Your task to perform on an android device: Search for "bose soundlink mini" on target, select the first entry, add it to the cart, then select checkout. Image 0: 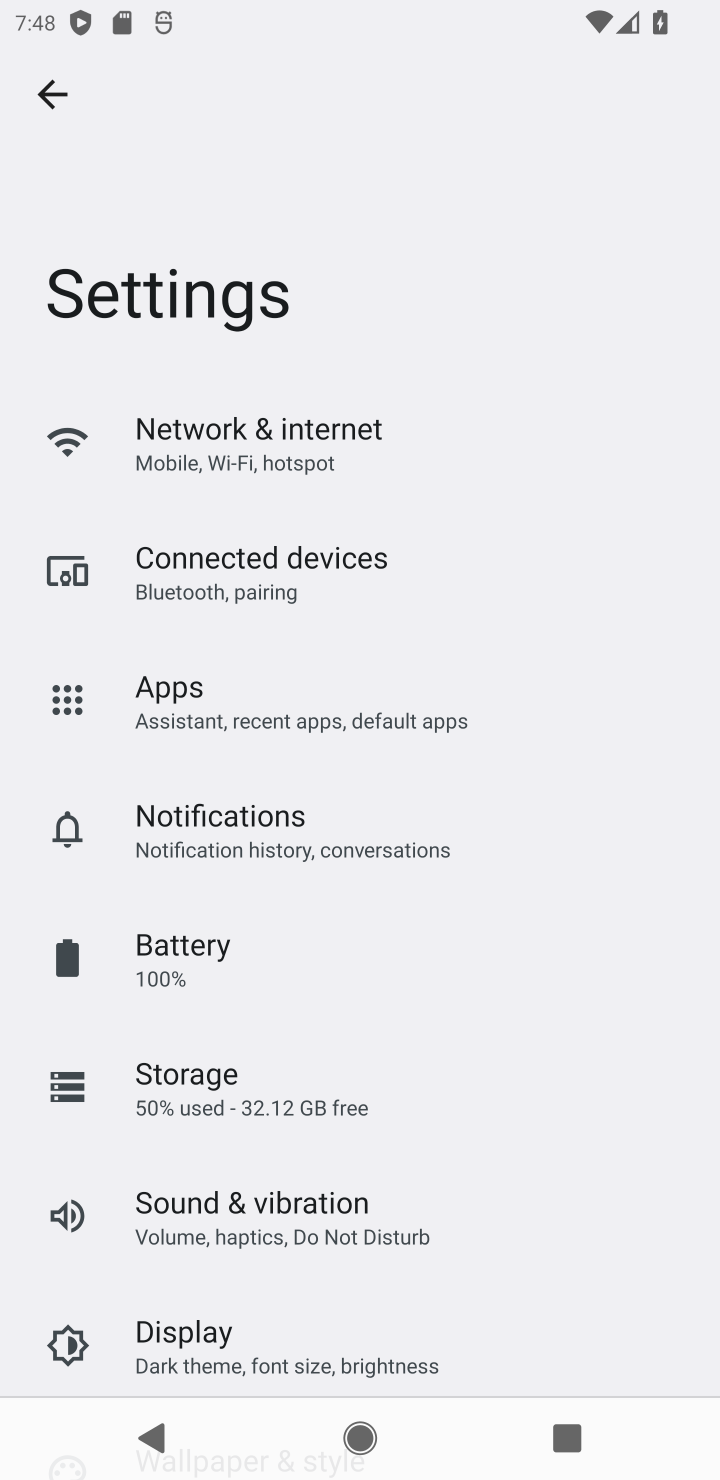
Step 0: press home button
Your task to perform on an android device: Search for "bose soundlink mini" on target, select the first entry, add it to the cart, then select checkout. Image 1: 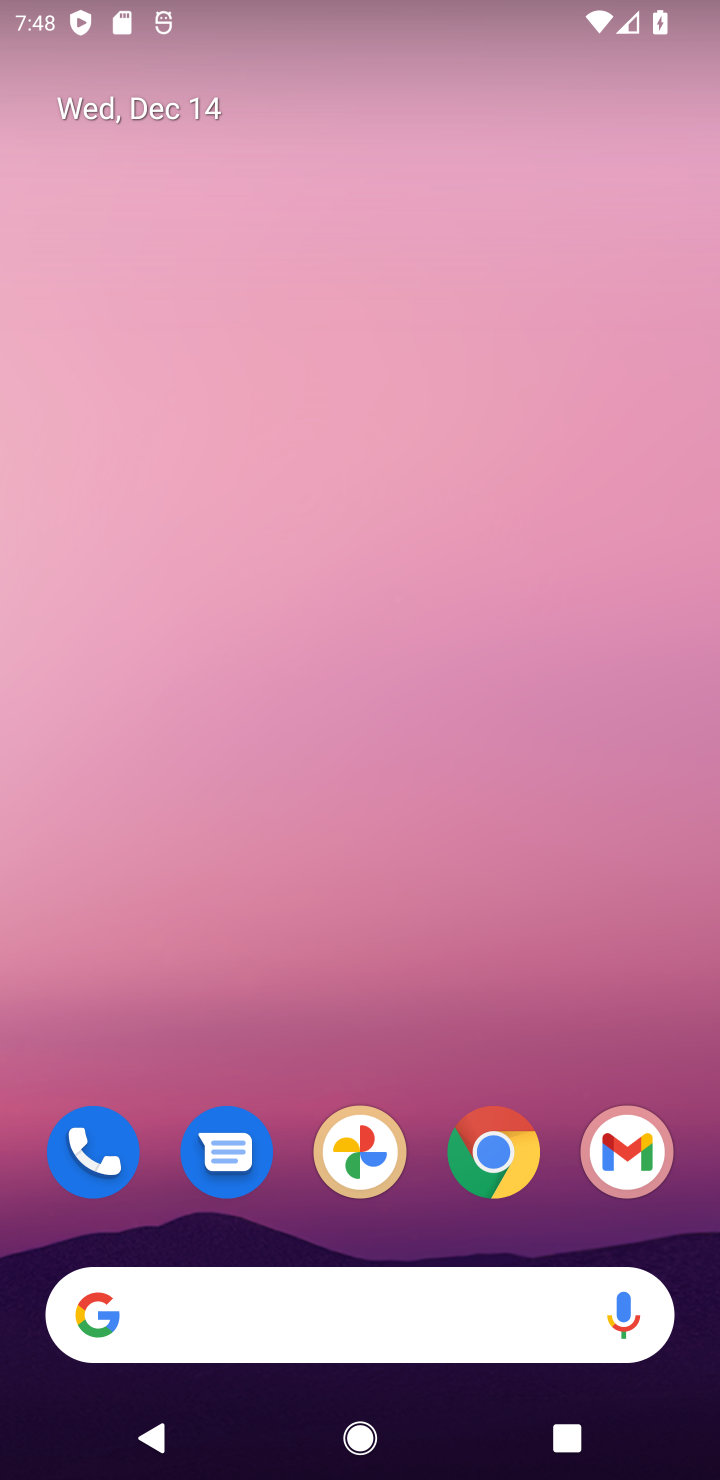
Step 1: click (493, 1173)
Your task to perform on an android device: Search for "bose soundlink mini" on target, select the first entry, add it to the cart, then select checkout. Image 2: 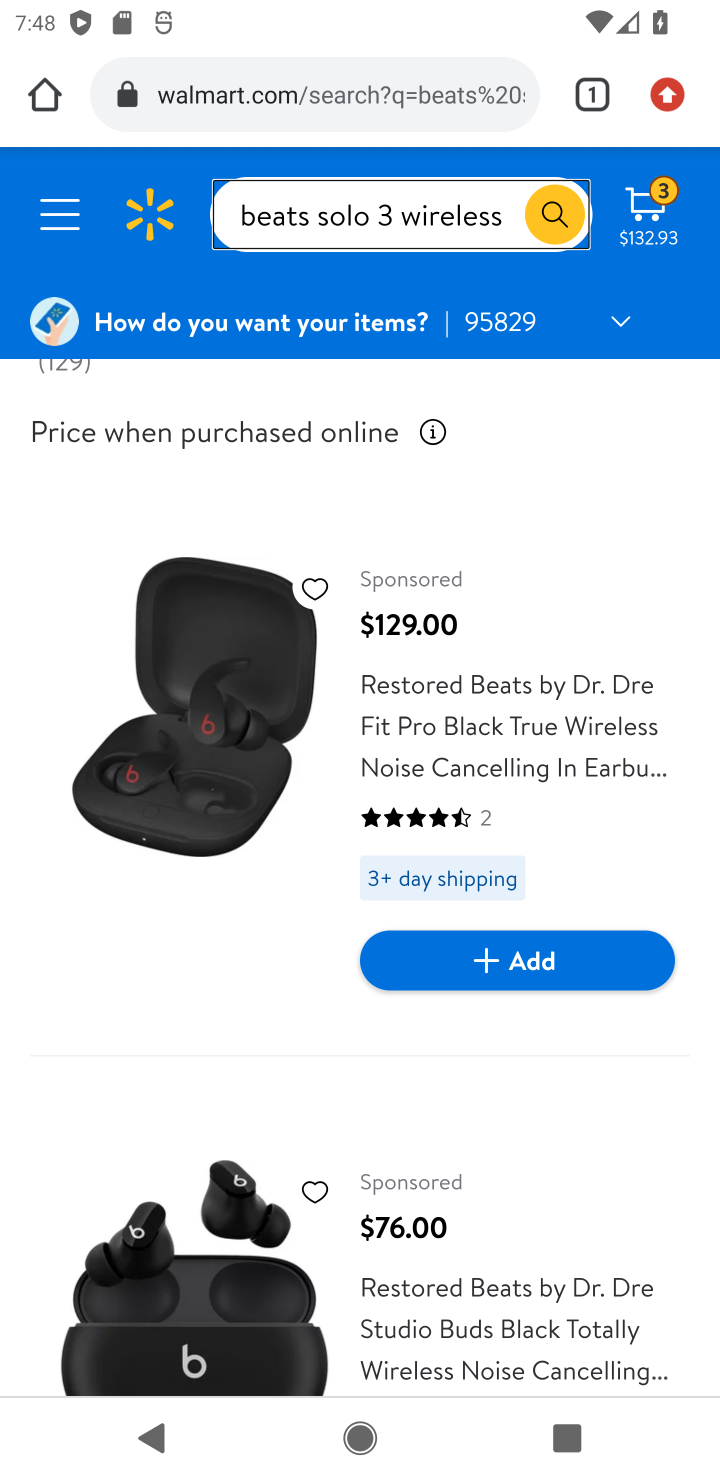
Step 2: click (282, 102)
Your task to perform on an android device: Search for "bose soundlink mini" on target, select the first entry, add it to the cart, then select checkout. Image 3: 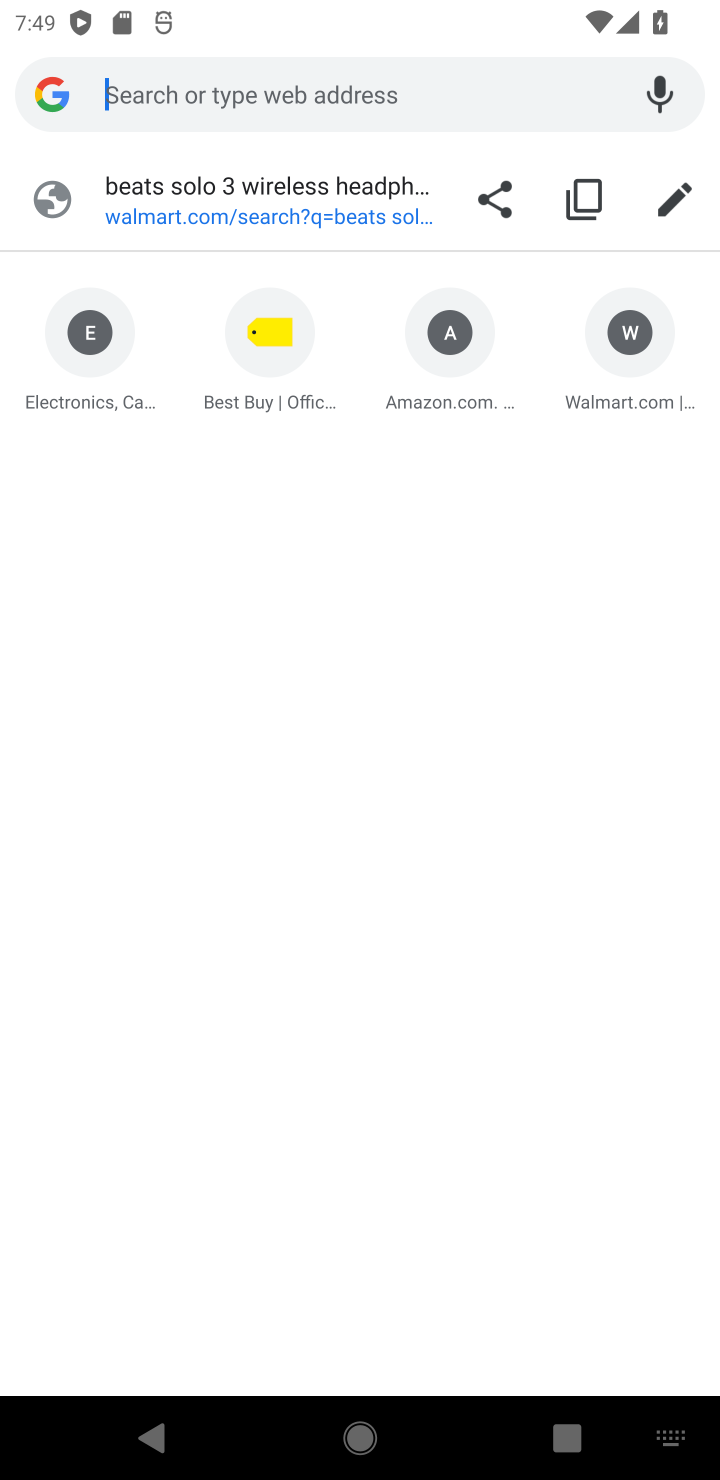
Step 3: type "target.com"
Your task to perform on an android device: Search for "bose soundlink mini" on target, select the first entry, add it to the cart, then select checkout. Image 4: 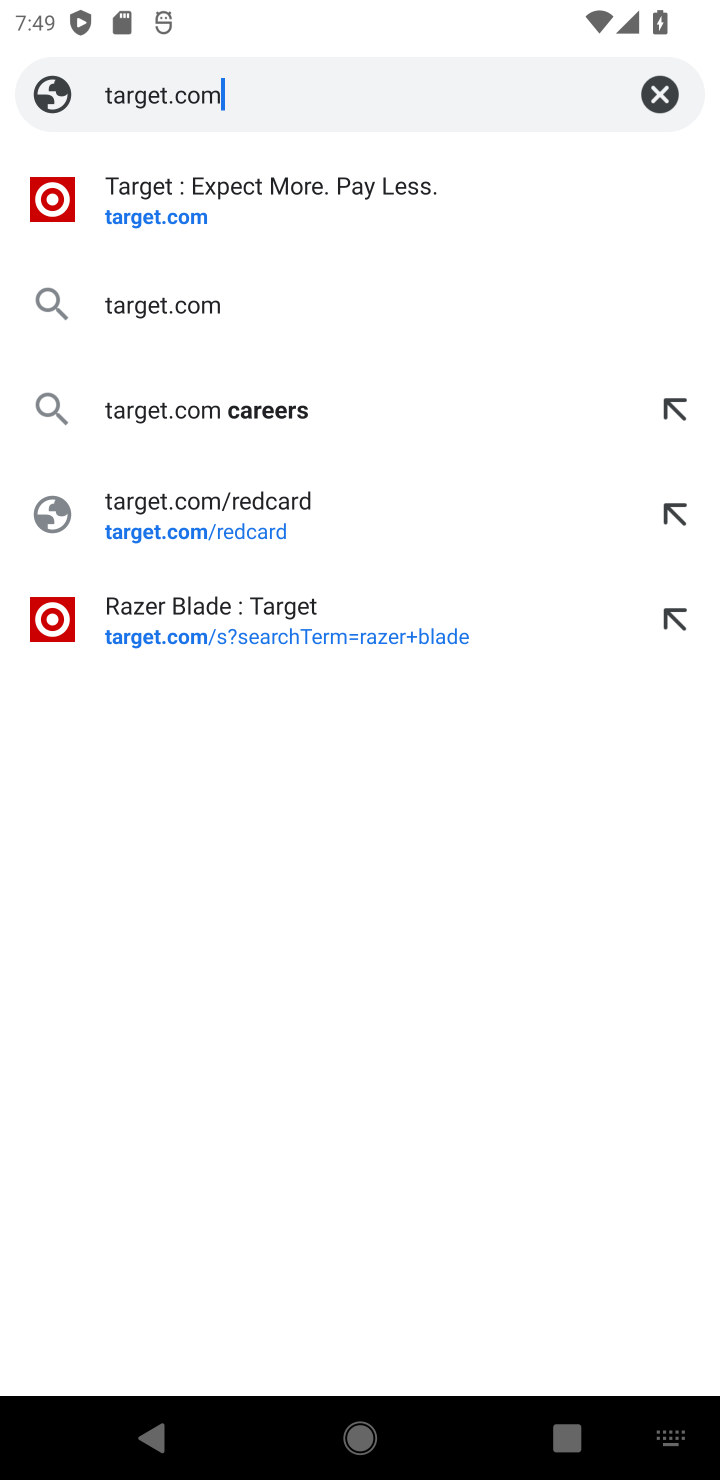
Step 4: click (130, 227)
Your task to perform on an android device: Search for "bose soundlink mini" on target, select the first entry, add it to the cart, then select checkout. Image 5: 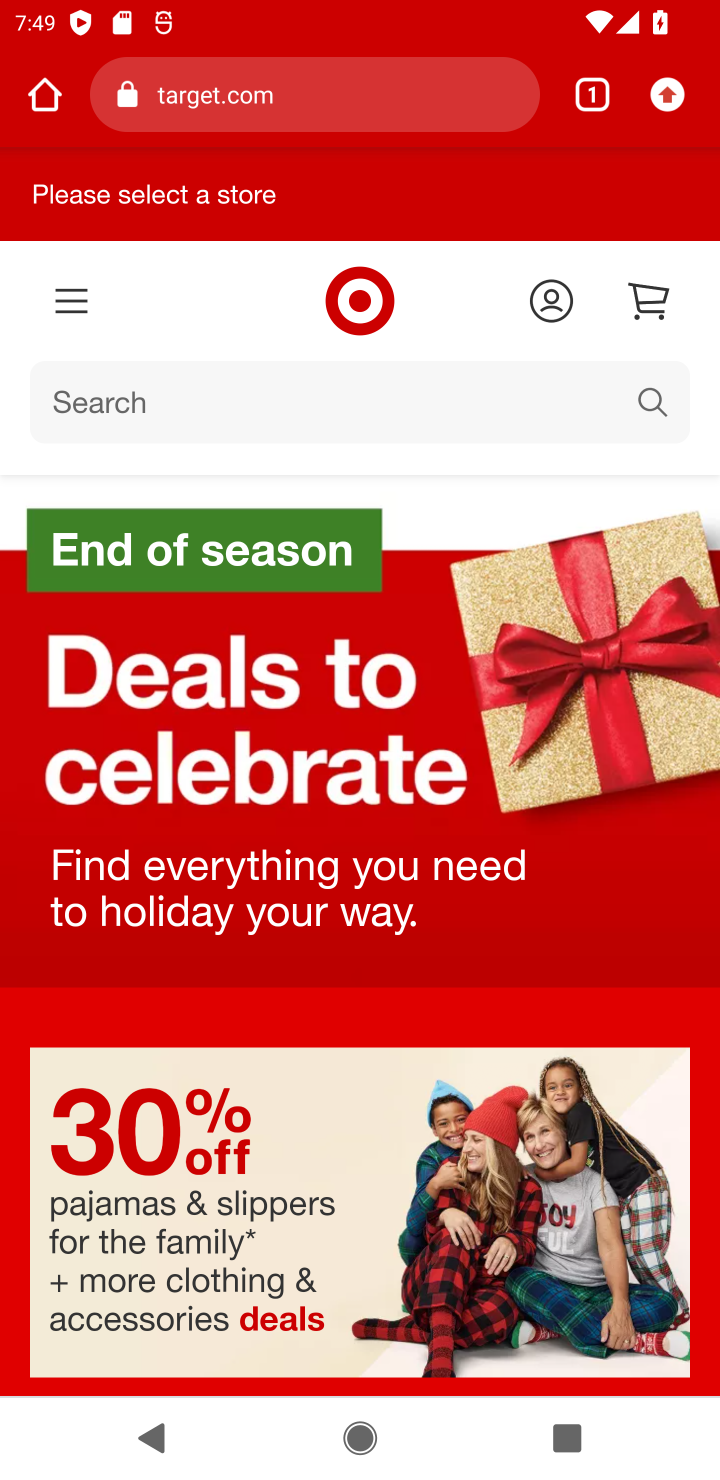
Step 5: click (65, 401)
Your task to perform on an android device: Search for "bose soundlink mini" on target, select the first entry, add it to the cart, then select checkout. Image 6: 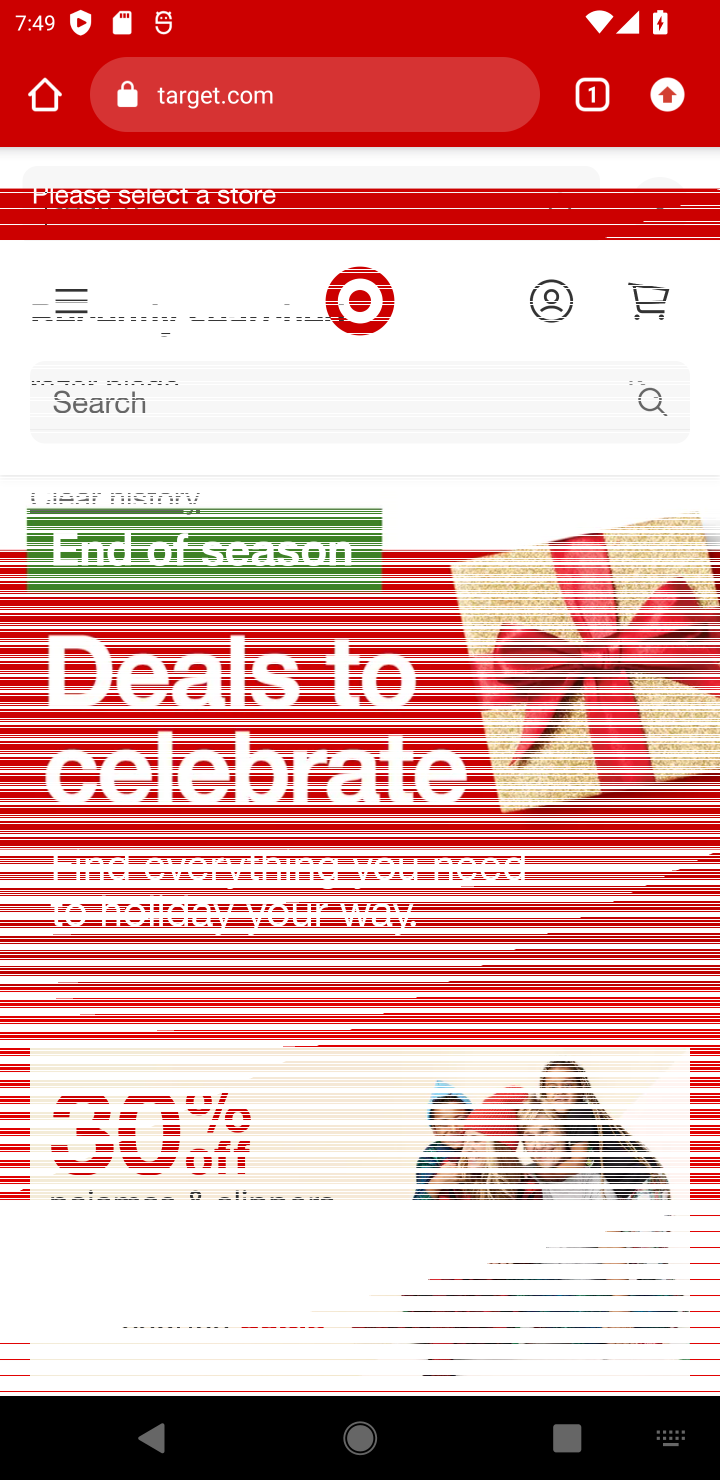
Step 6: type "bose soundlink mini"
Your task to perform on an android device: Search for "bose soundlink mini" on target, select the first entry, add it to the cart, then select checkout. Image 7: 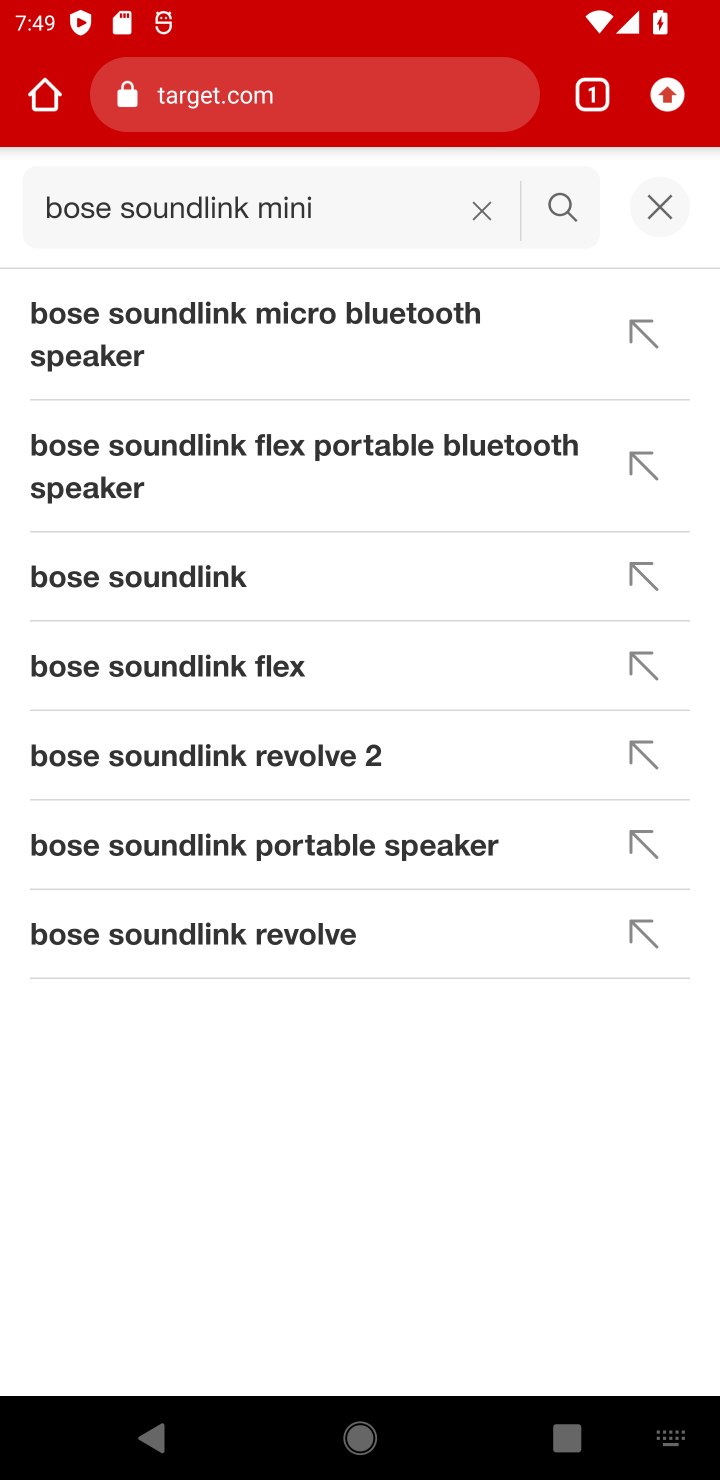
Step 7: click (564, 202)
Your task to perform on an android device: Search for "bose soundlink mini" on target, select the first entry, add it to the cart, then select checkout. Image 8: 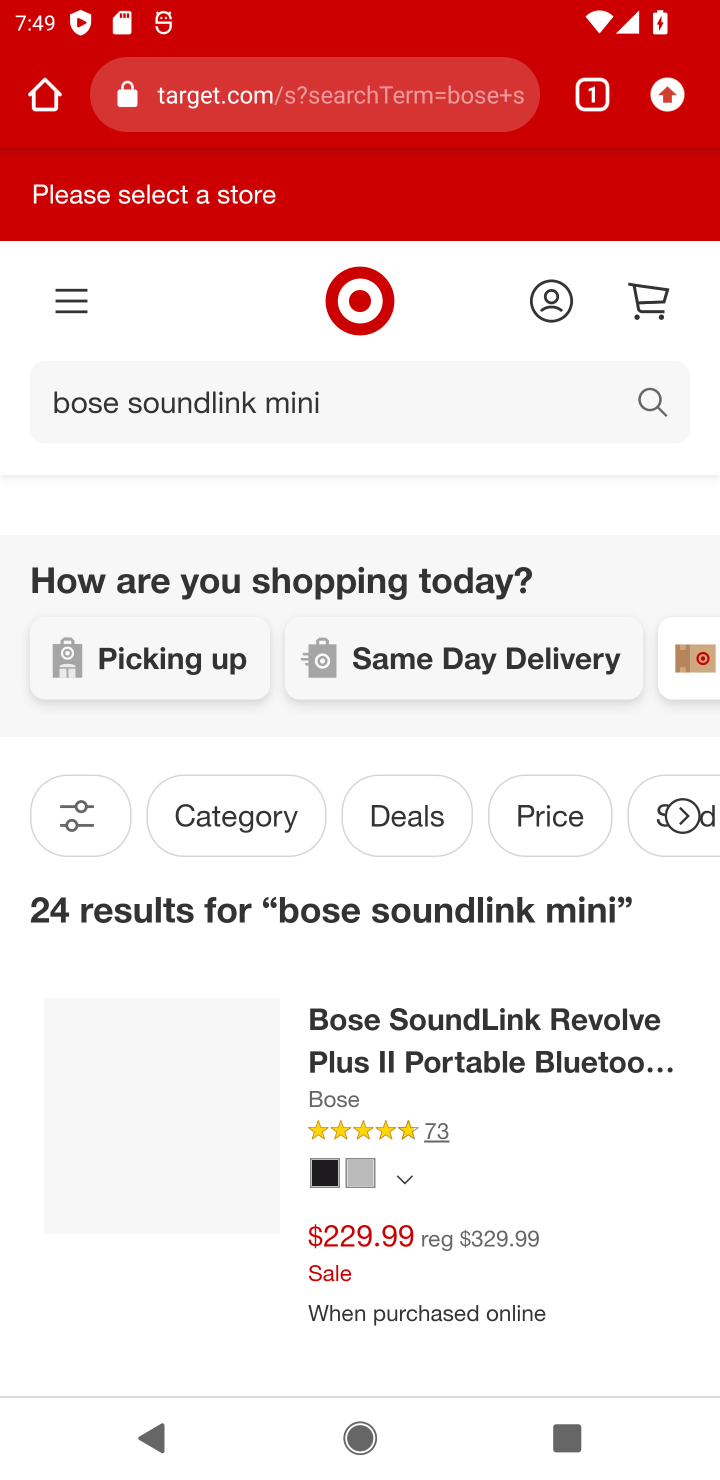
Step 8: task complete